Your task to perform on an android device: turn off notifications settings in the gmail app Image 0: 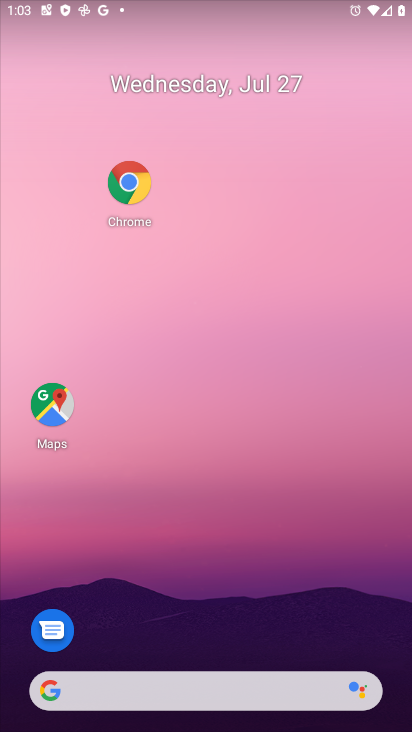
Step 0: drag from (234, 722) to (267, 156)
Your task to perform on an android device: turn off notifications settings in the gmail app Image 1: 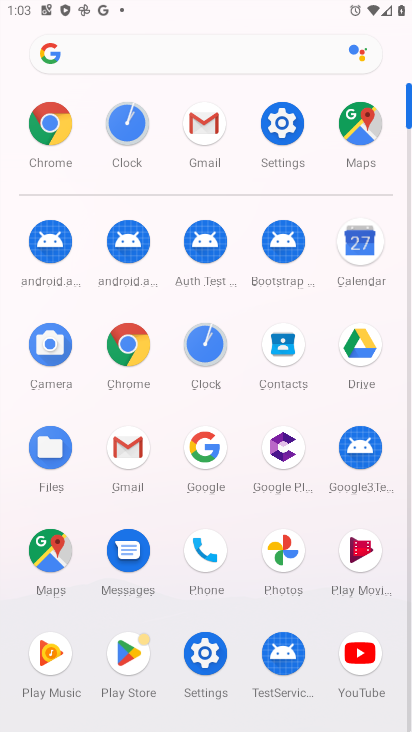
Step 1: click (213, 133)
Your task to perform on an android device: turn off notifications settings in the gmail app Image 2: 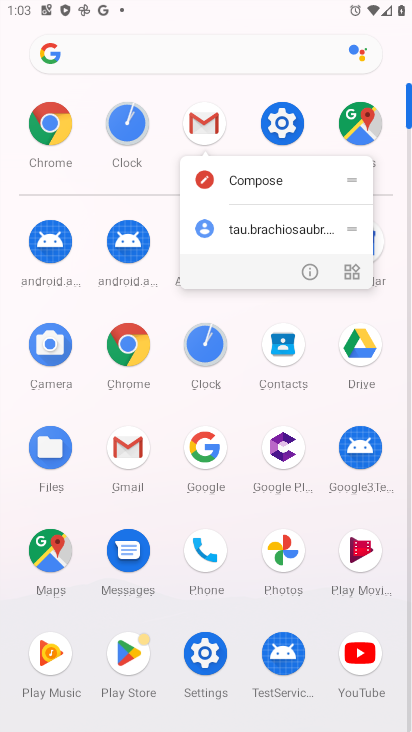
Step 2: click (313, 273)
Your task to perform on an android device: turn off notifications settings in the gmail app Image 3: 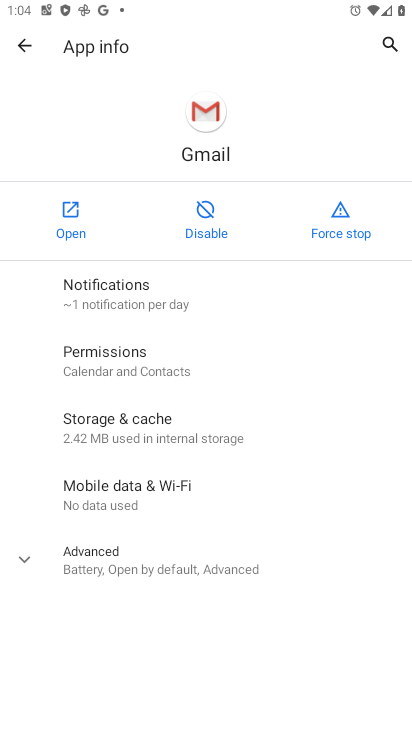
Step 3: click (278, 294)
Your task to perform on an android device: turn off notifications settings in the gmail app Image 4: 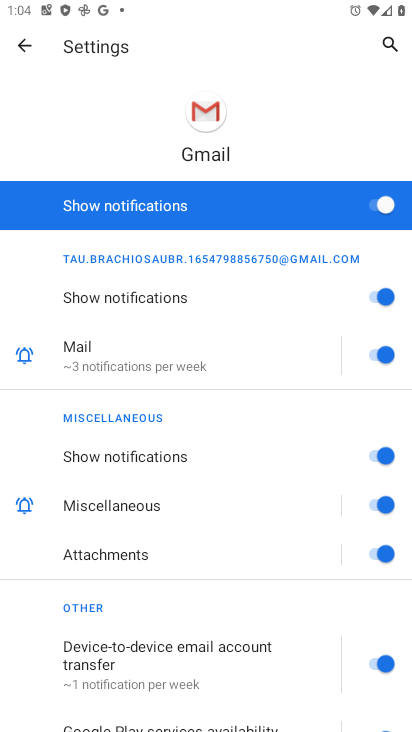
Step 4: click (386, 200)
Your task to perform on an android device: turn off notifications settings in the gmail app Image 5: 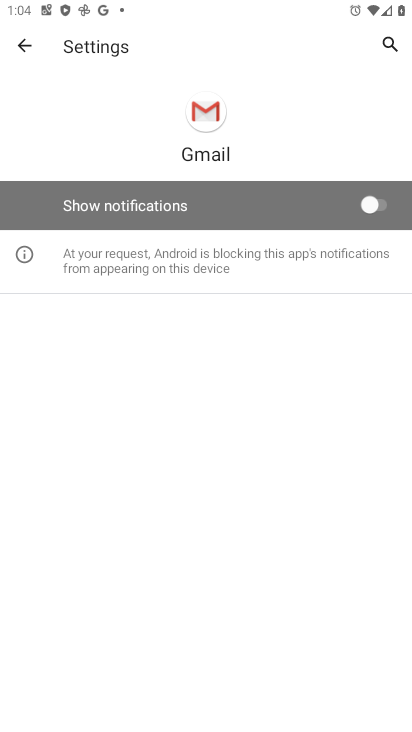
Step 5: task complete